Your task to perform on an android device: Open accessibility settings Image 0: 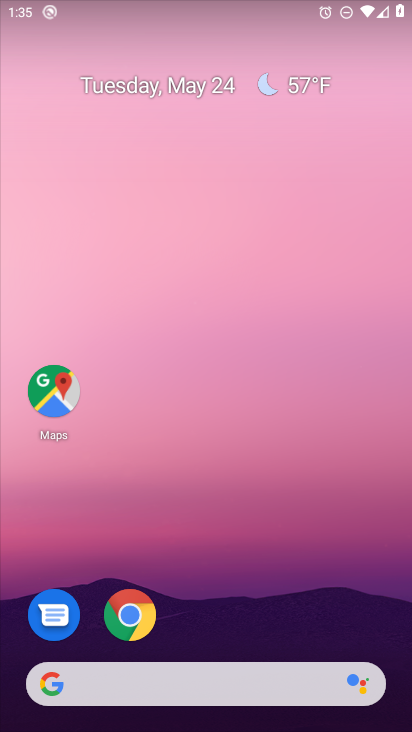
Step 0: drag from (233, 664) to (243, 132)
Your task to perform on an android device: Open accessibility settings Image 1: 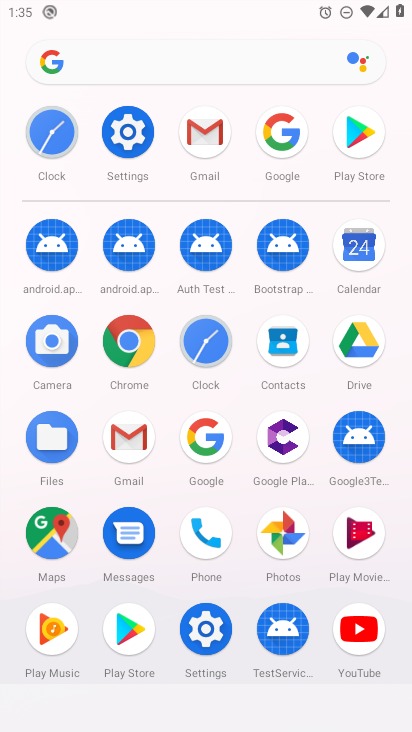
Step 1: click (128, 137)
Your task to perform on an android device: Open accessibility settings Image 2: 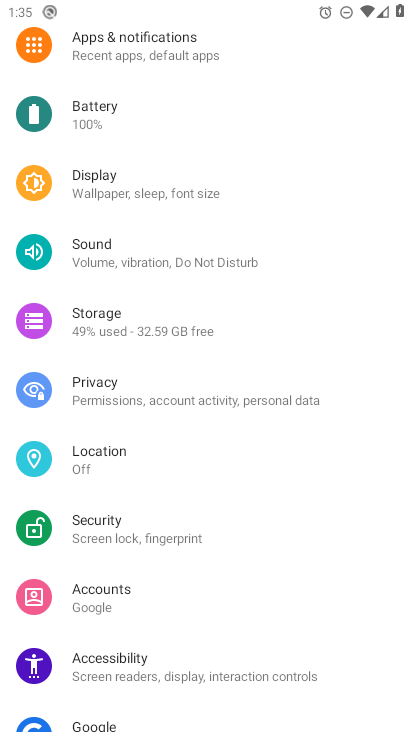
Step 2: click (126, 674)
Your task to perform on an android device: Open accessibility settings Image 3: 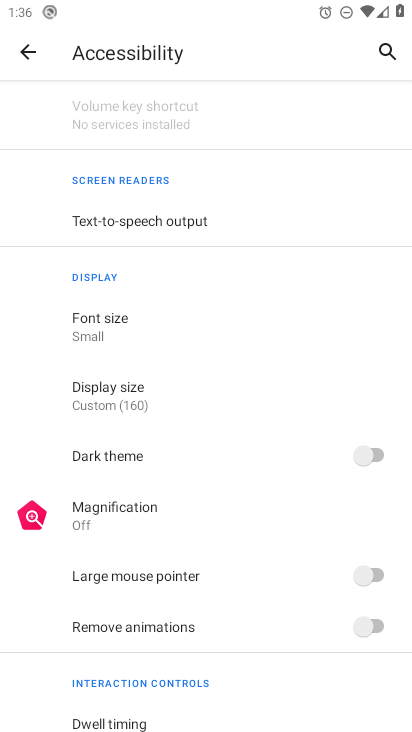
Step 3: task complete